Your task to perform on an android device: Go to notification settings Image 0: 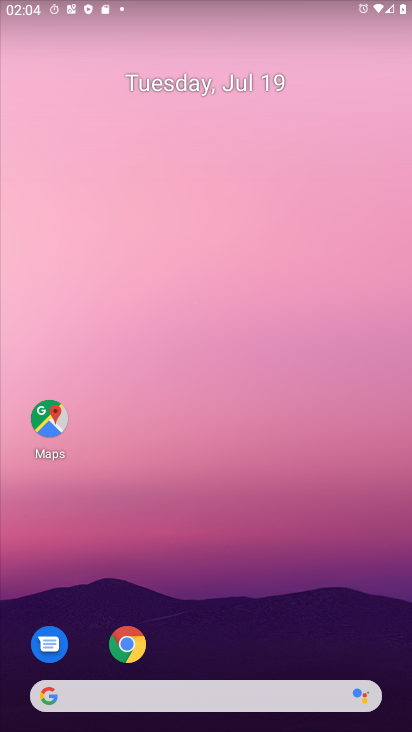
Step 0: drag from (214, 730) to (220, 170)
Your task to perform on an android device: Go to notification settings Image 1: 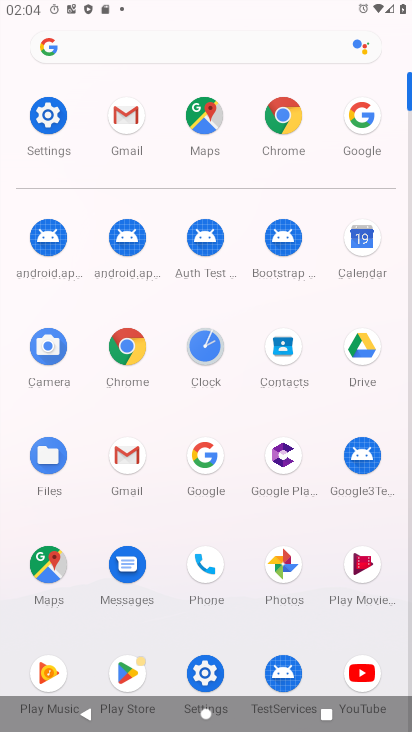
Step 1: click (53, 110)
Your task to perform on an android device: Go to notification settings Image 2: 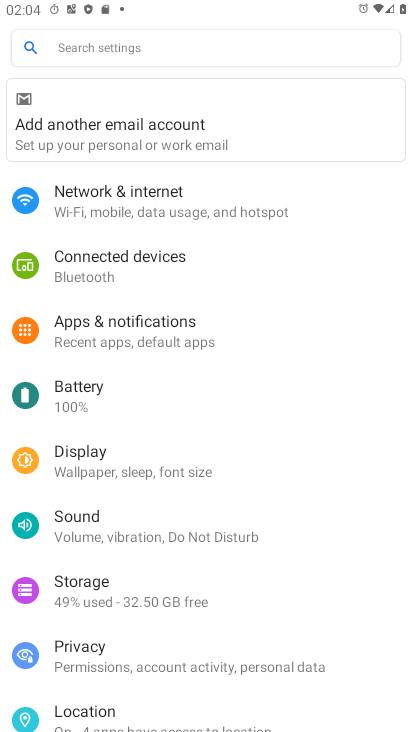
Step 2: click (124, 333)
Your task to perform on an android device: Go to notification settings Image 3: 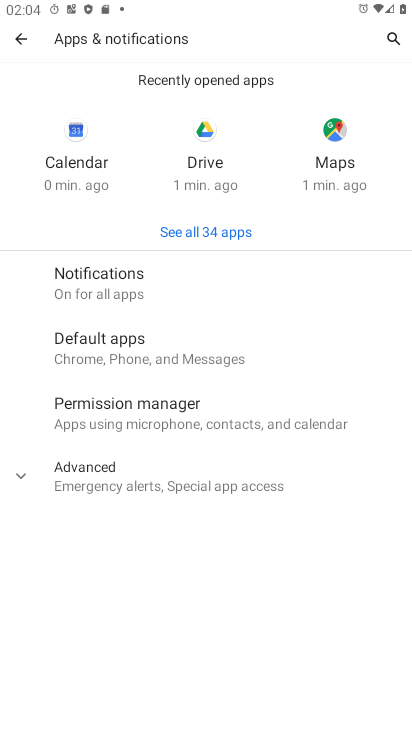
Step 3: click (88, 294)
Your task to perform on an android device: Go to notification settings Image 4: 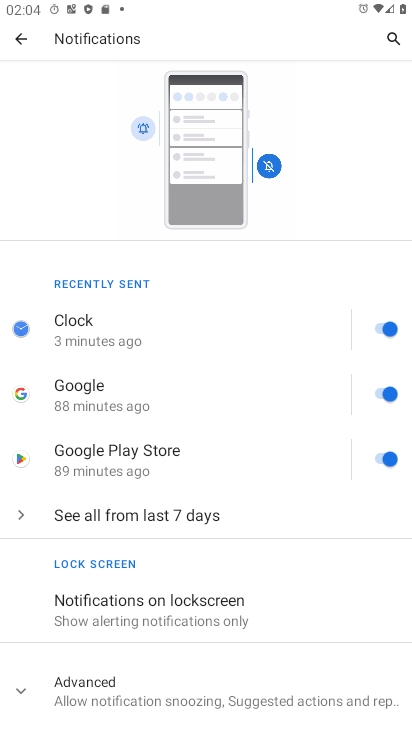
Step 4: task complete